Your task to perform on an android device: Open my contact list Image 0: 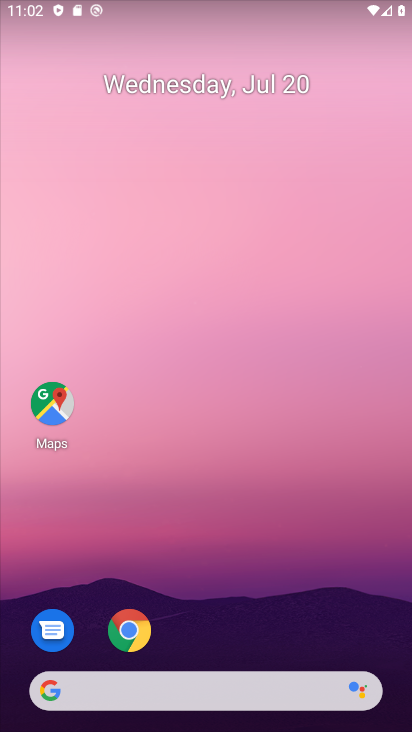
Step 0: drag from (264, 63) to (267, 21)
Your task to perform on an android device: Open my contact list Image 1: 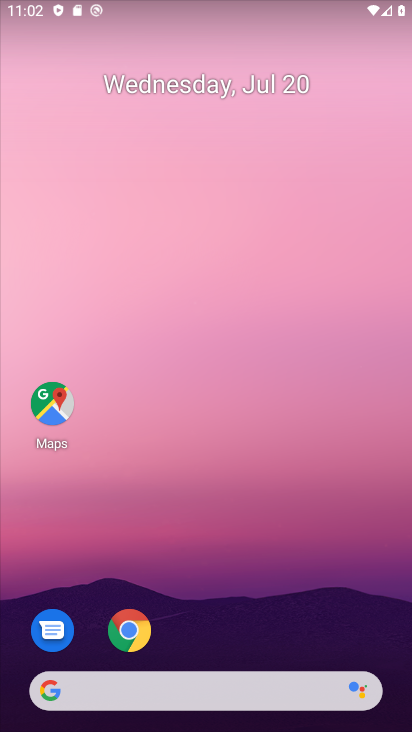
Step 1: drag from (225, 647) to (289, 35)
Your task to perform on an android device: Open my contact list Image 2: 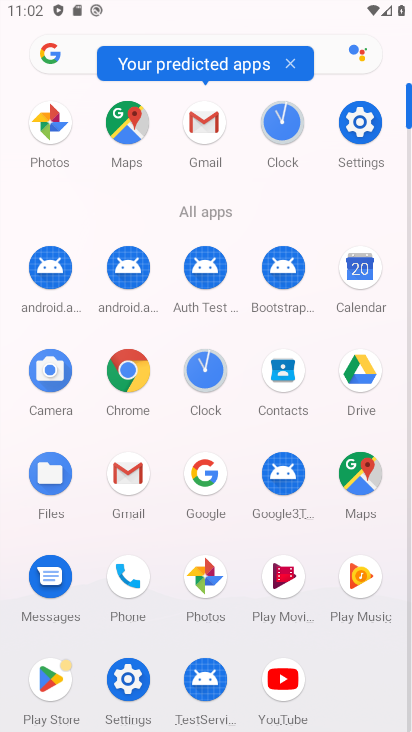
Step 2: click (277, 370)
Your task to perform on an android device: Open my contact list Image 3: 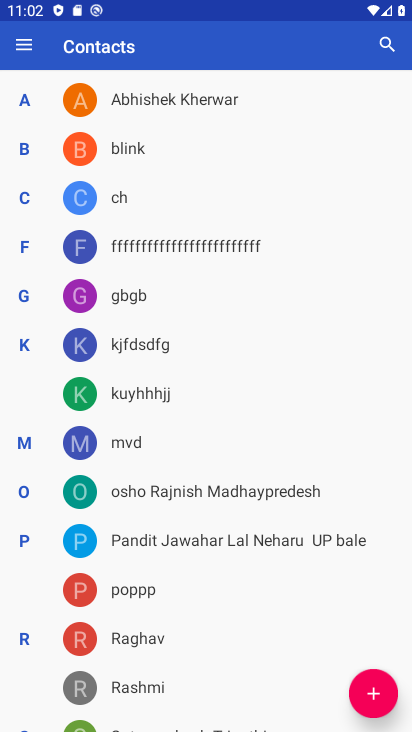
Step 3: task complete